Your task to perform on an android device: open a bookmark in the chrome app Image 0: 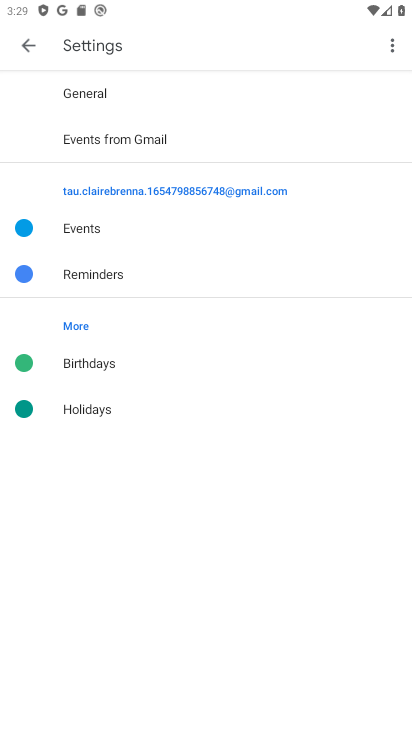
Step 0: press home button
Your task to perform on an android device: open a bookmark in the chrome app Image 1: 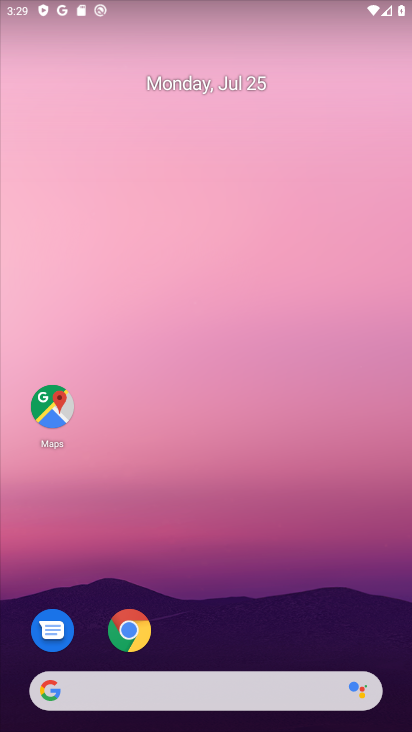
Step 1: click (131, 630)
Your task to perform on an android device: open a bookmark in the chrome app Image 2: 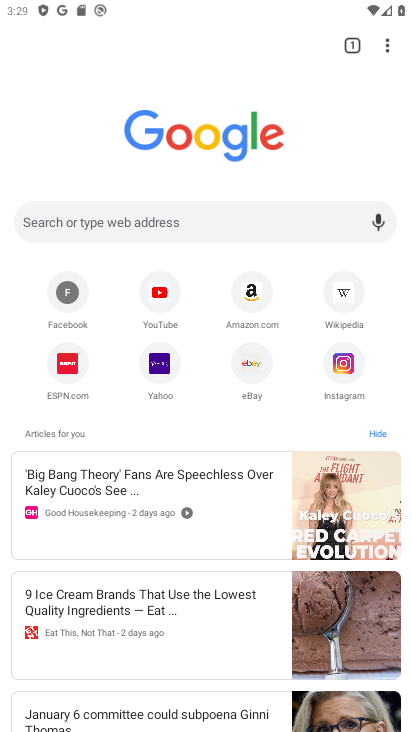
Step 2: click (387, 43)
Your task to perform on an android device: open a bookmark in the chrome app Image 3: 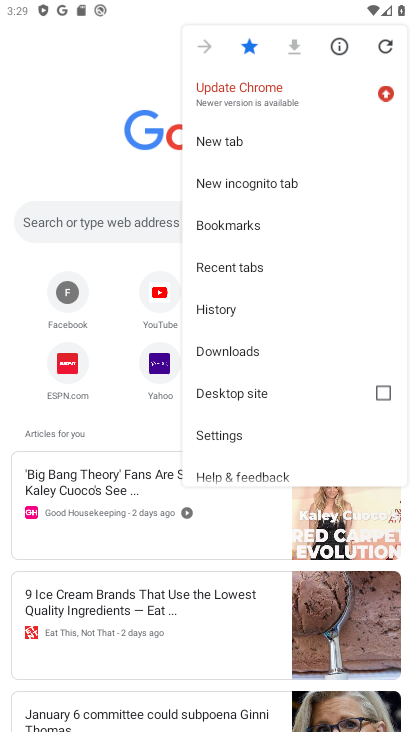
Step 3: click (248, 225)
Your task to perform on an android device: open a bookmark in the chrome app Image 4: 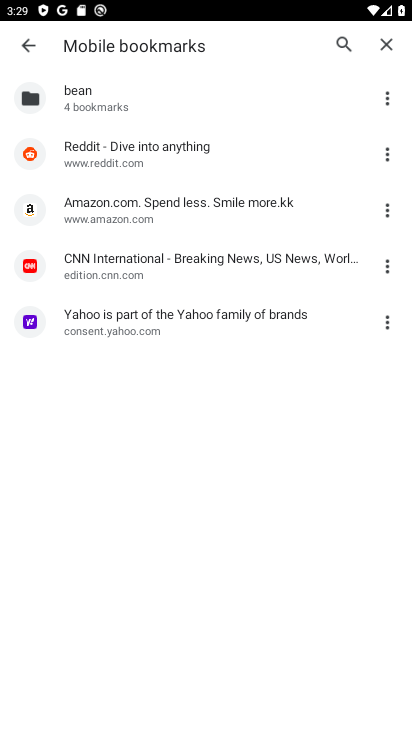
Step 4: task complete